Your task to perform on an android device: Go to eBay Image 0: 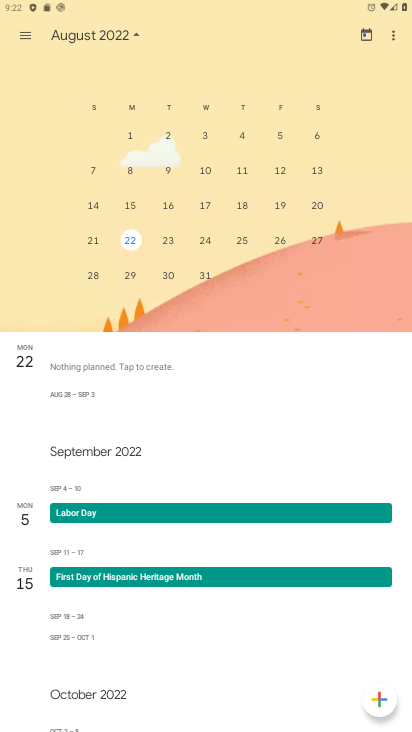
Step 0: press home button
Your task to perform on an android device: Go to eBay Image 1: 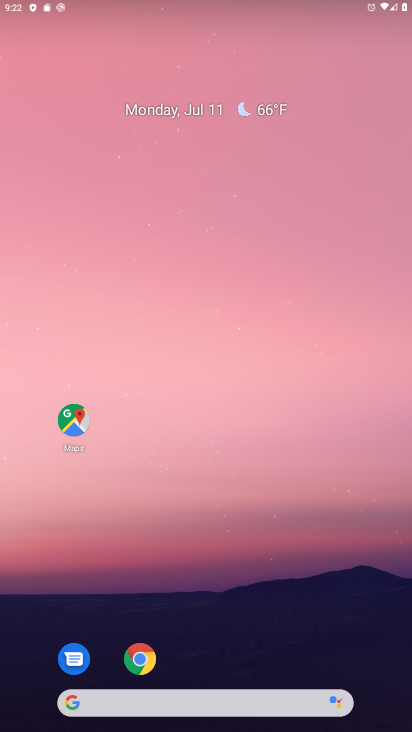
Step 1: drag from (324, 582) to (307, 77)
Your task to perform on an android device: Go to eBay Image 2: 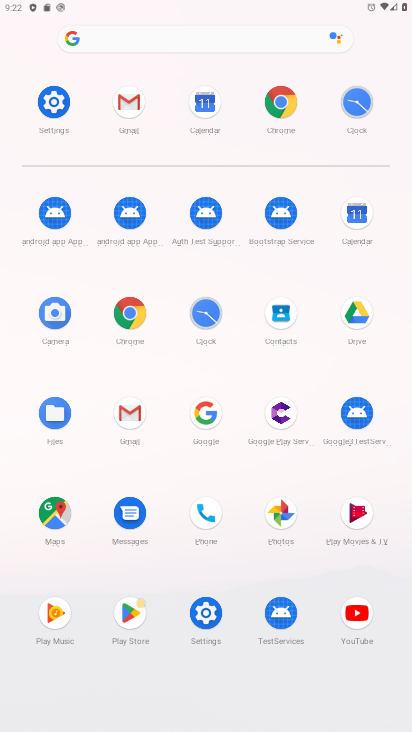
Step 2: click (136, 325)
Your task to perform on an android device: Go to eBay Image 3: 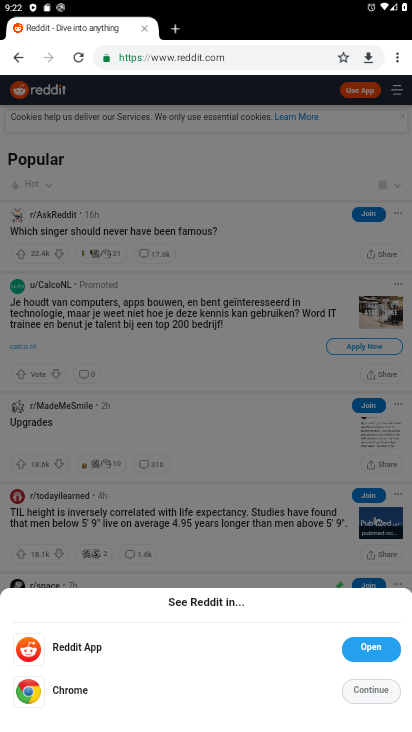
Step 3: click (220, 57)
Your task to perform on an android device: Go to eBay Image 4: 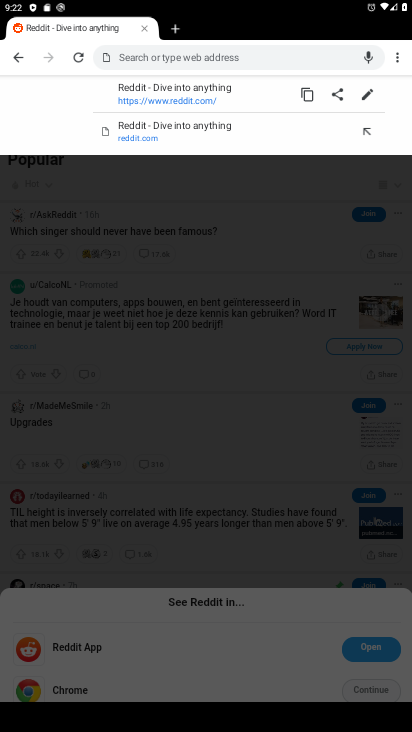
Step 4: type "ebay"
Your task to perform on an android device: Go to eBay Image 5: 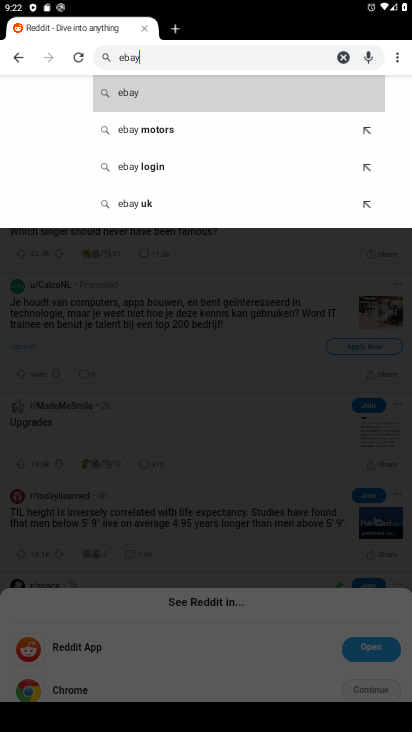
Step 5: click (171, 93)
Your task to perform on an android device: Go to eBay Image 6: 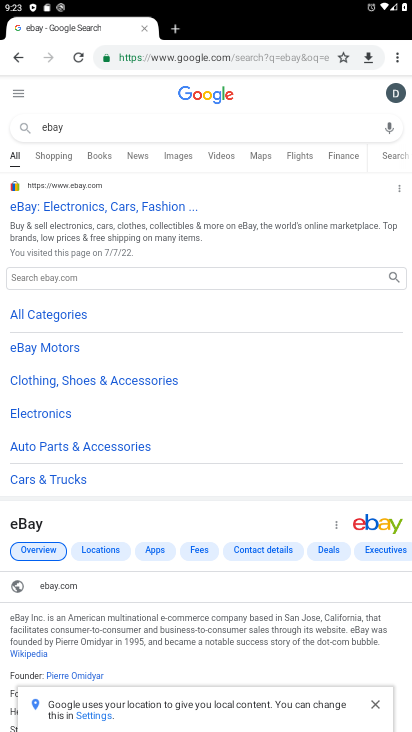
Step 6: task complete